Your task to perform on an android device: Find coffee shops on Maps Image 0: 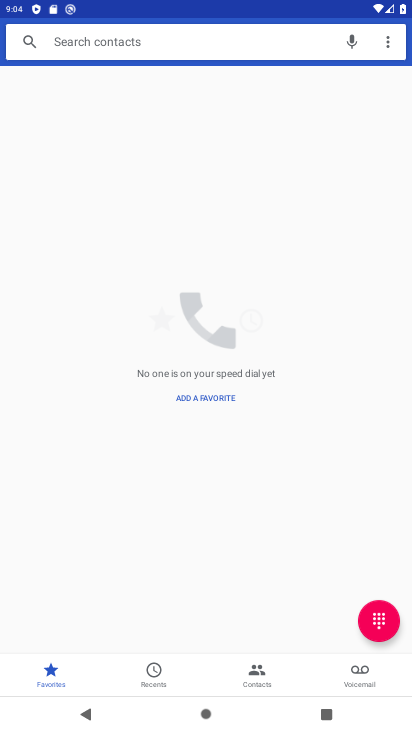
Step 0: press home button
Your task to perform on an android device: Find coffee shops on Maps Image 1: 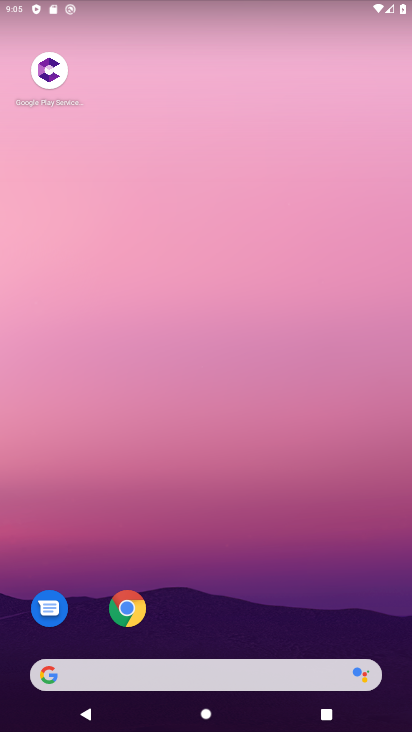
Step 1: drag from (64, 484) to (191, 200)
Your task to perform on an android device: Find coffee shops on Maps Image 2: 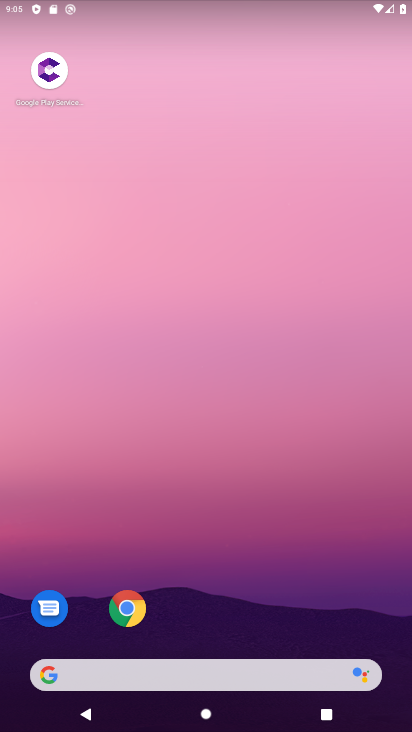
Step 2: drag from (45, 512) to (303, 59)
Your task to perform on an android device: Find coffee shops on Maps Image 3: 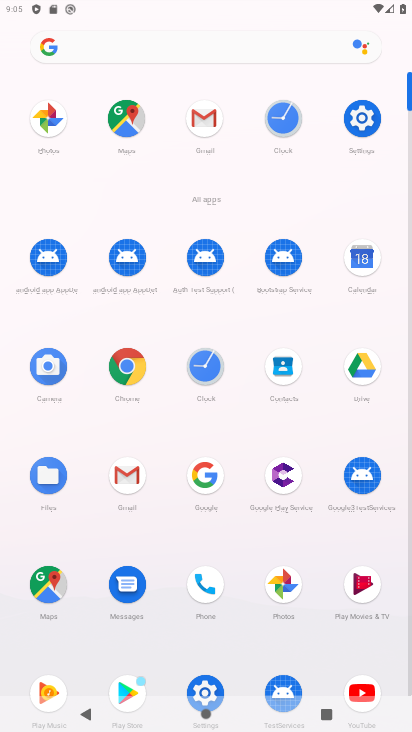
Step 3: click (52, 587)
Your task to perform on an android device: Find coffee shops on Maps Image 4: 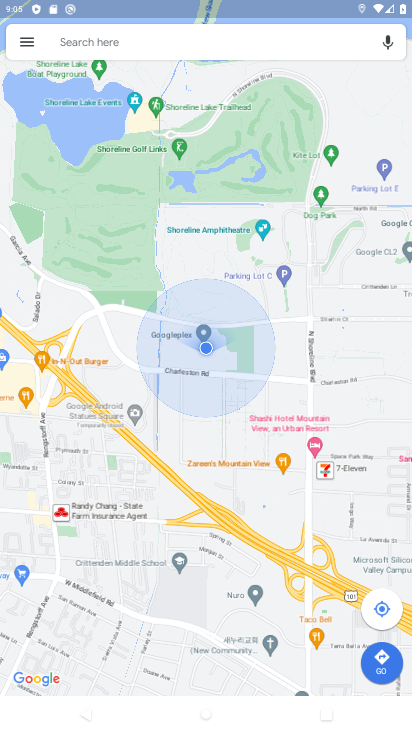
Step 4: click (161, 40)
Your task to perform on an android device: Find coffee shops on Maps Image 5: 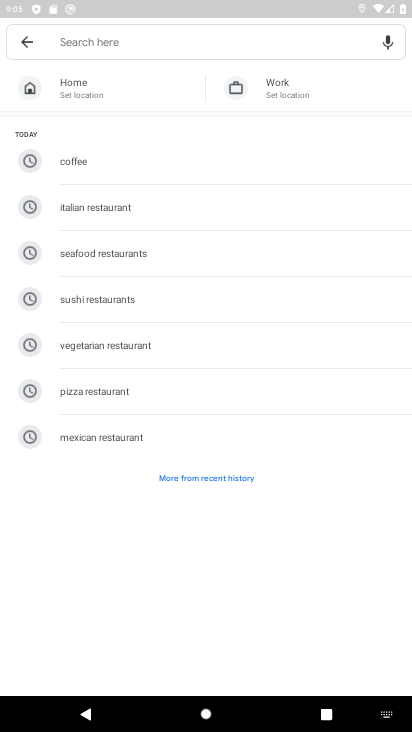
Step 5: click (111, 162)
Your task to perform on an android device: Find coffee shops on Maps Image 6: 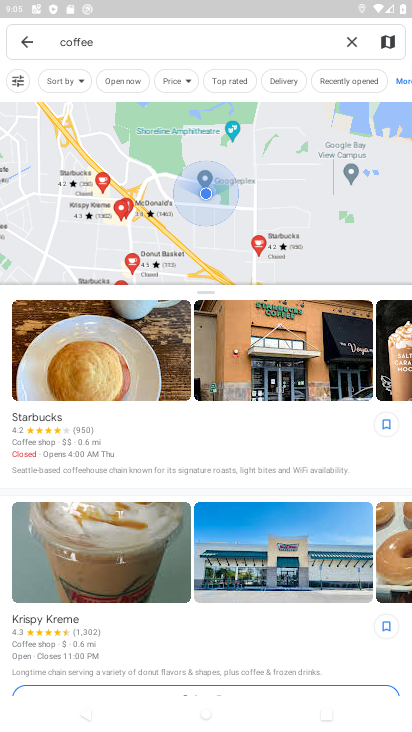
Step 6: task complete